Your task to perform on an android device: When is my next meeting? Image 0: 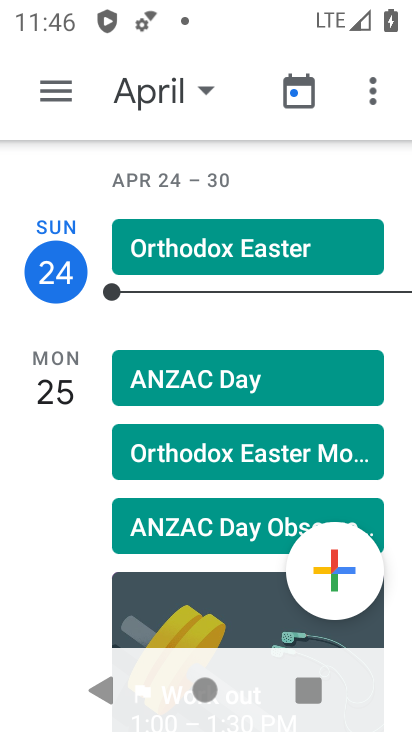
Step 0: press home button
Your task to perform on an android device: When is my next meeting? Image 1: 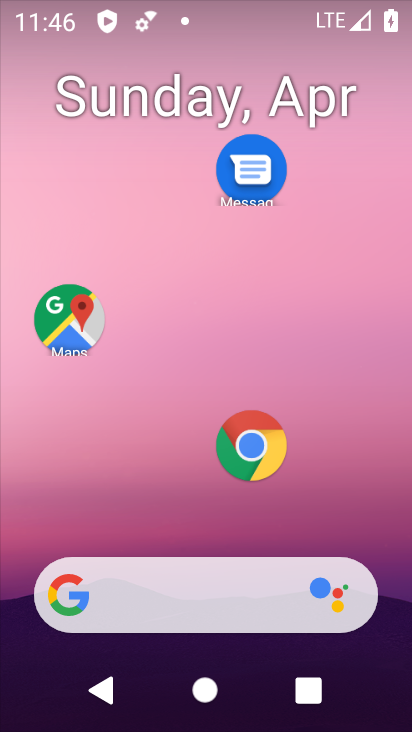
Step 1: drag from (152, 602) to (347, 26)
Your task to perform on an android device: When is my next meeting? Image 2: 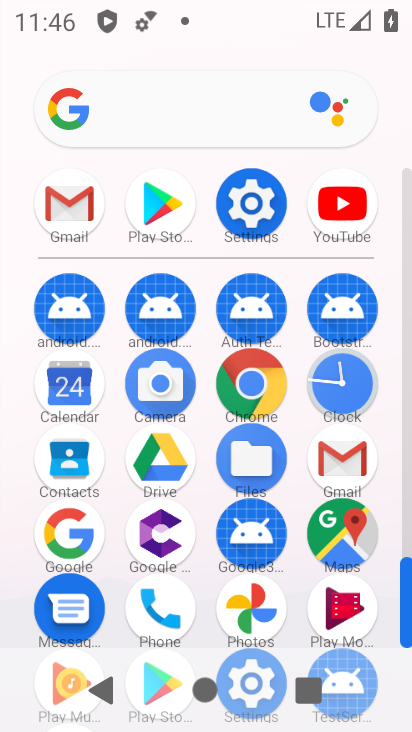
Step 2: click (73, 394)
Your task to perform on an android device: When is my next meeting? Image 3: 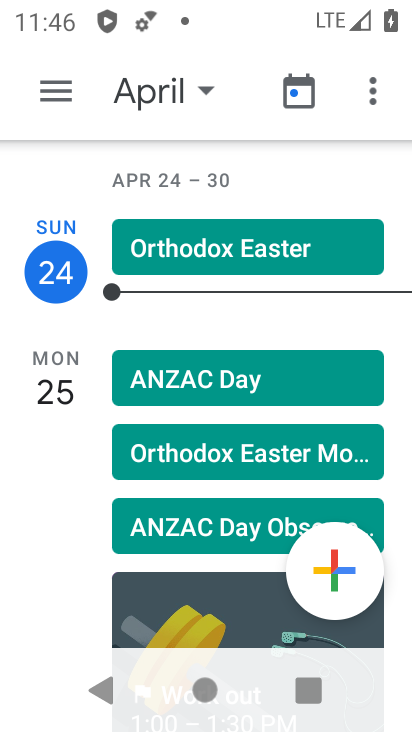
Step 3: click (157, 81)
Your task to perform on an android device: When is my next meeting? Image 4: 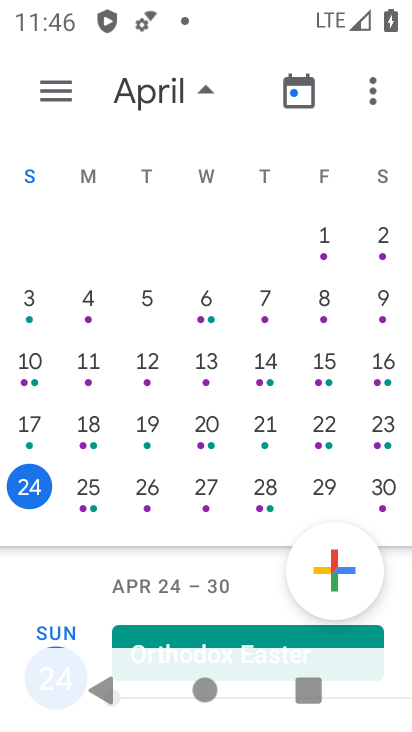
Step 4: click (51, 90)
Your task to perform on an android device: When is my next meeting? Image 5: 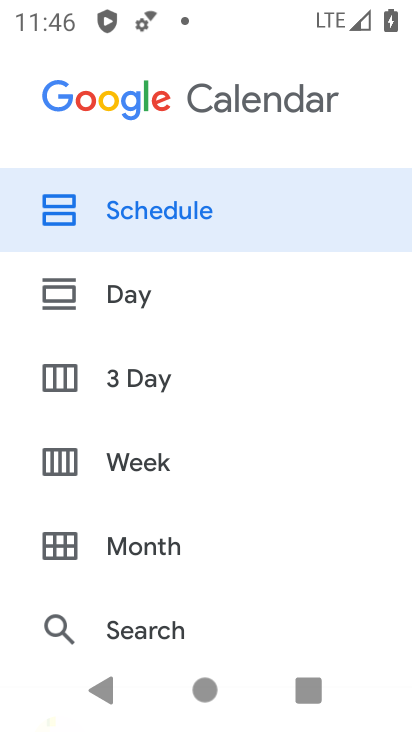
Step 5: click (155, 196)
Your task to perform on an android device: When is my next meeting? Image 6: 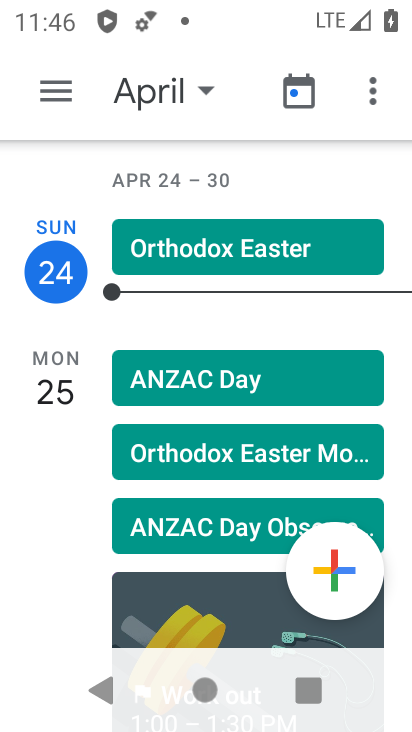
Step 6: drag from (160, 593) to (274, 301)
Your task to perform on an android device: When is my next meeting? Image 7: 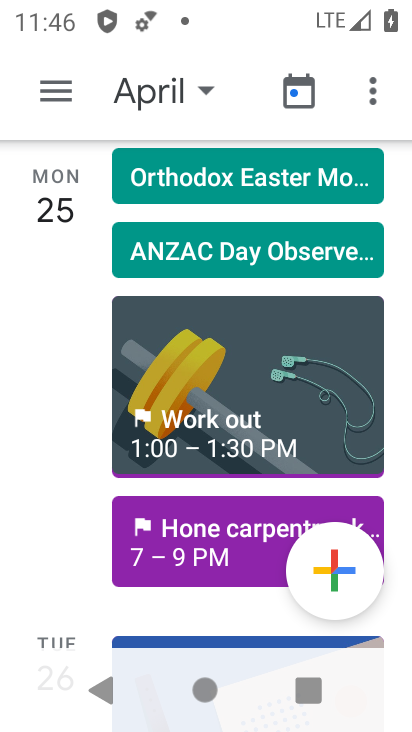
Step 7: click (203, 527)
Your task to perform on an android device: When is my next meeting? Image 8: 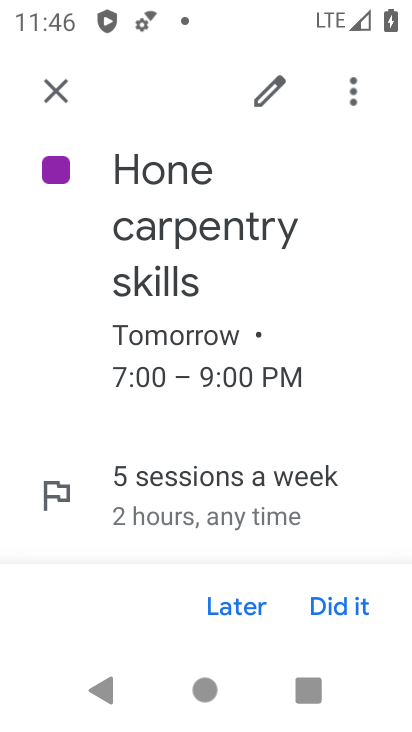
Step 8: task complete